Your task to perform on an android device: turn pop-ups off in chrome Image 0: 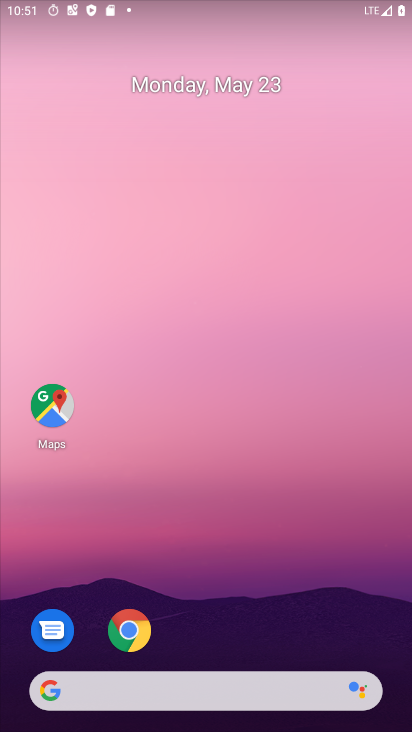
Step 0: click (131, 632)
Your task to perform on an android device: turn pop-ups off in chrome Image 1: 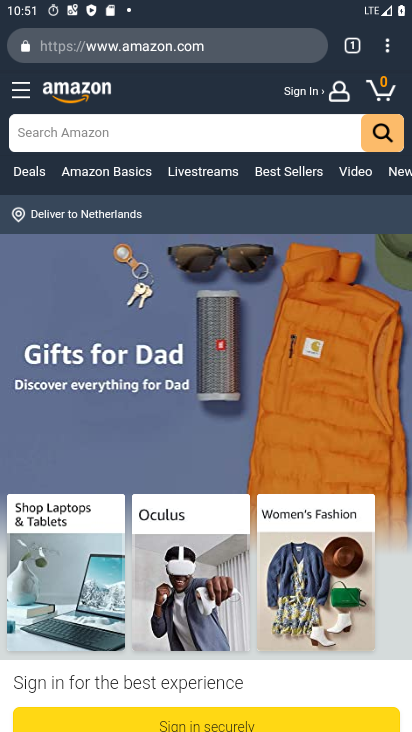
Step 1: click (390, 53)
Your task to perform on an android device: turn pop-ups off in chrome Image 2: 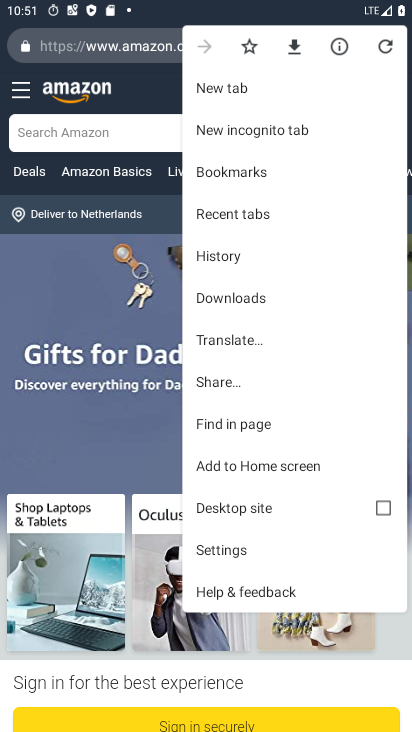
Step 2: click (227, 551)
Your task to perform on an android device: turn pop-ups off in chrome Image 3: 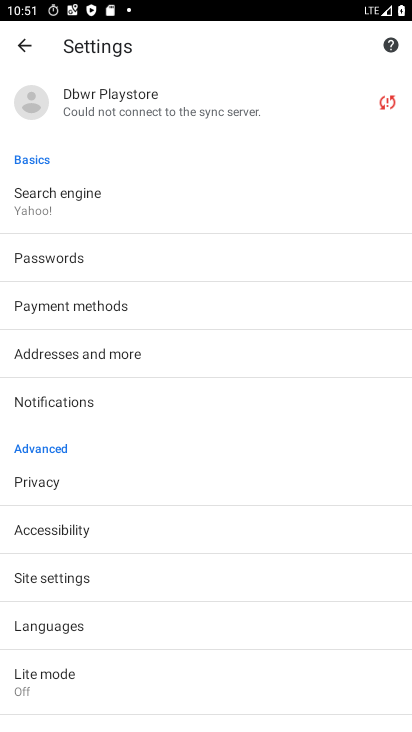
Step 3: click (79, 579)
Your task to perform on an android device: turn pop-ups off in chrome Image 4: 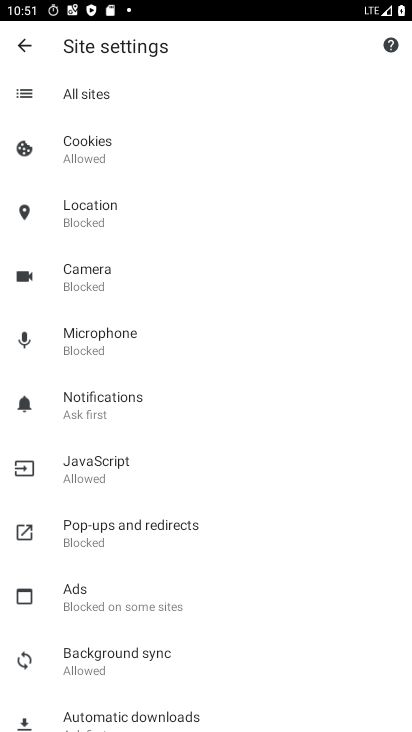
Step 4: click (112, 528)
Your task to perform on an android device: turn pop-ups off in chrome Image 5: 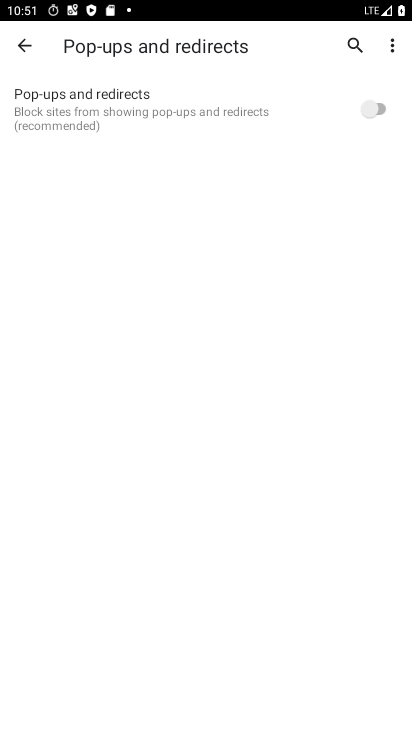
Step 5: task complete